Your task to perform on an android device: Open notification settings Image 0: 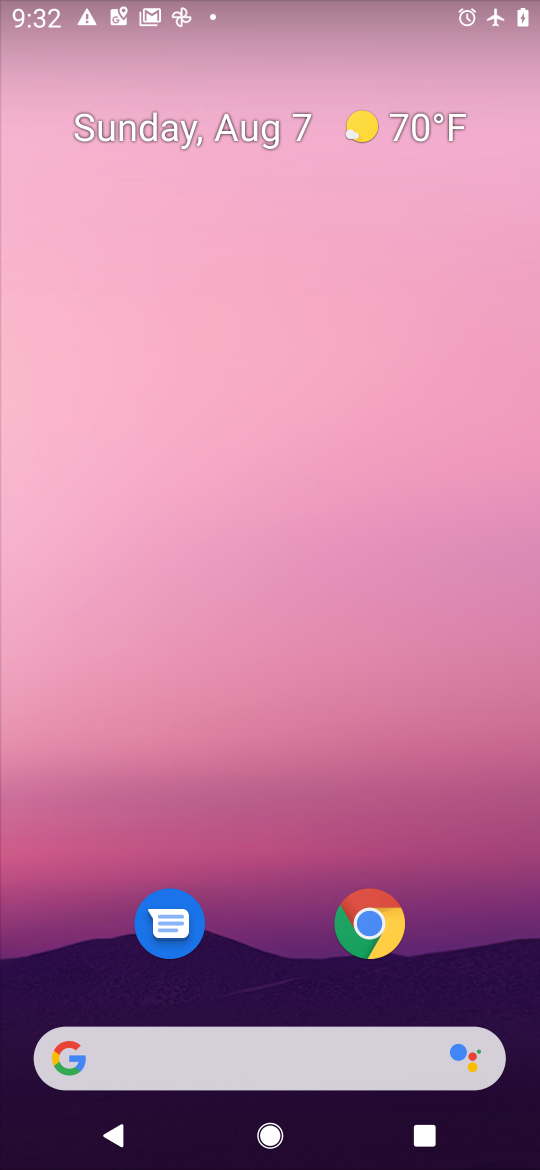
Step 0: drag from (514, 961) to (154, 25)
Your task to perform on an android device: Open notification settings Image 1: 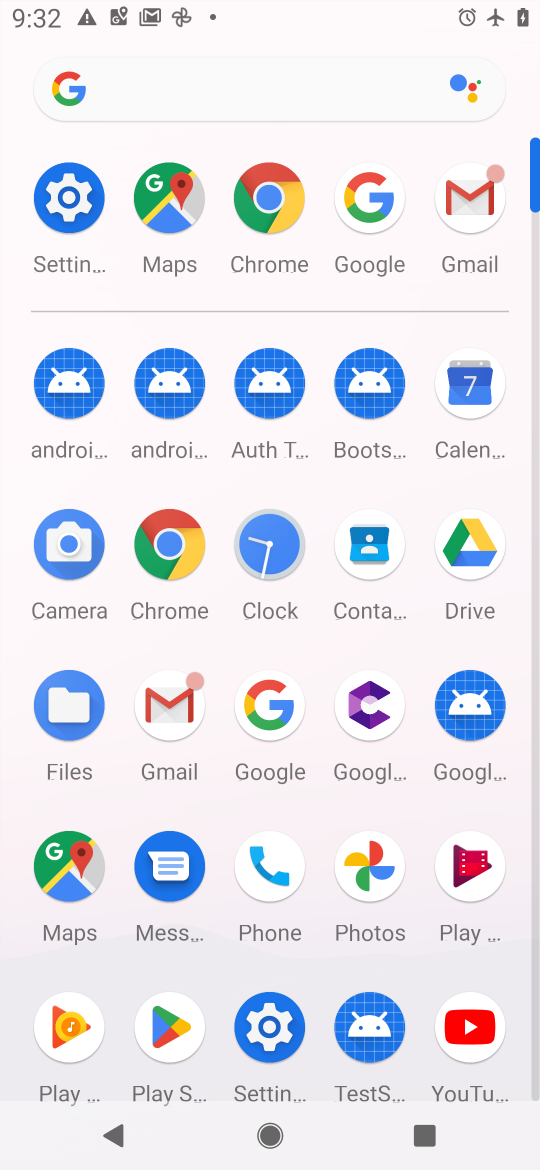
Step 1: click (259, 1029)
Your task to perform on an android device: Open notification settings Image 2: 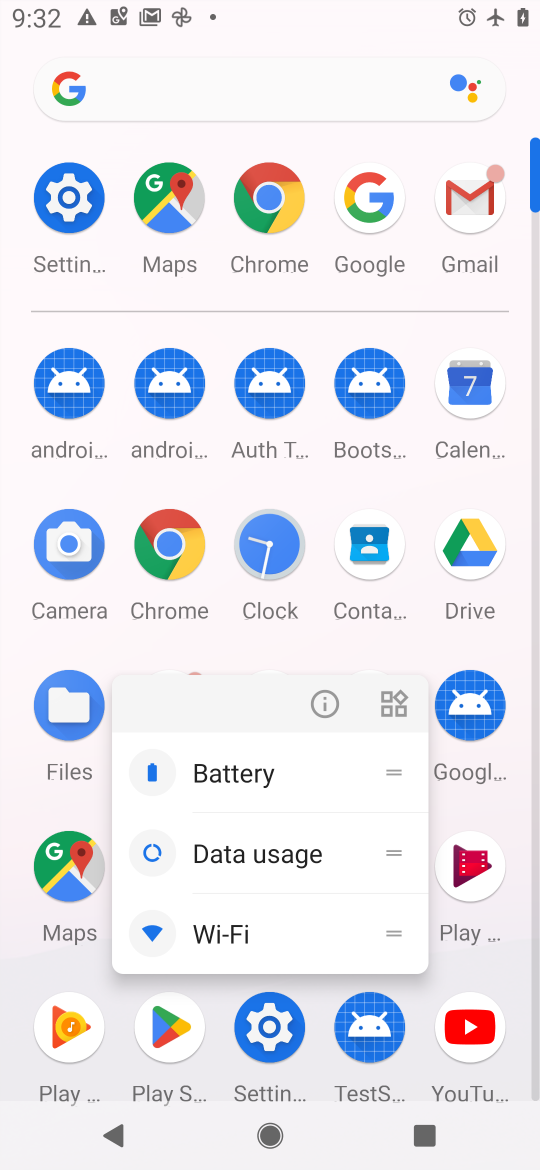
Step 2: click (259, 1029)
Your task to perform on an android device: Open notification settings Image 3: 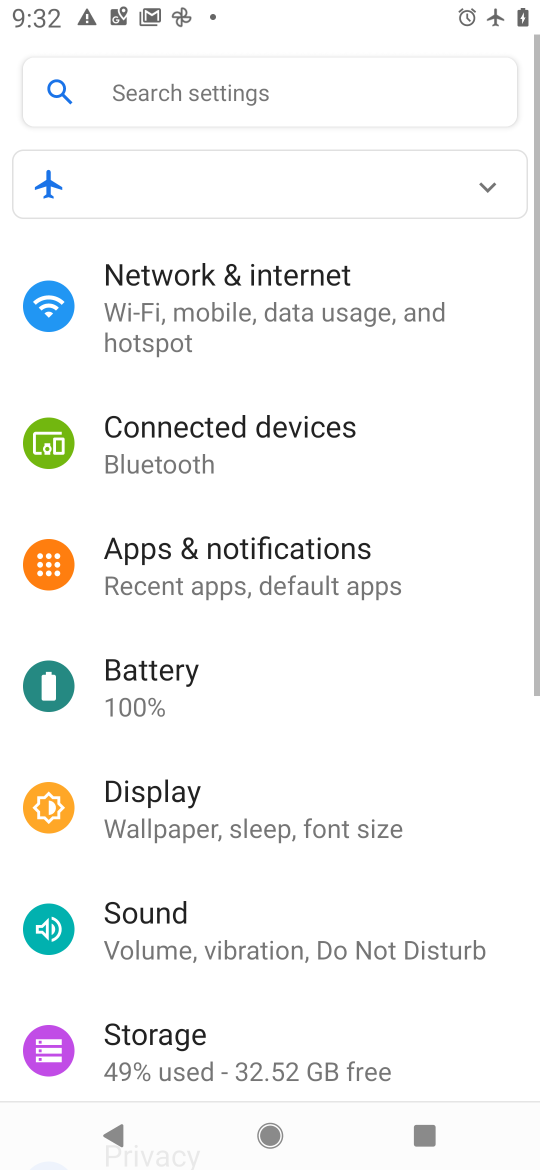
Step 3: click (170, 573)
Your task to perform on an android device: Open notification settings Image 4: 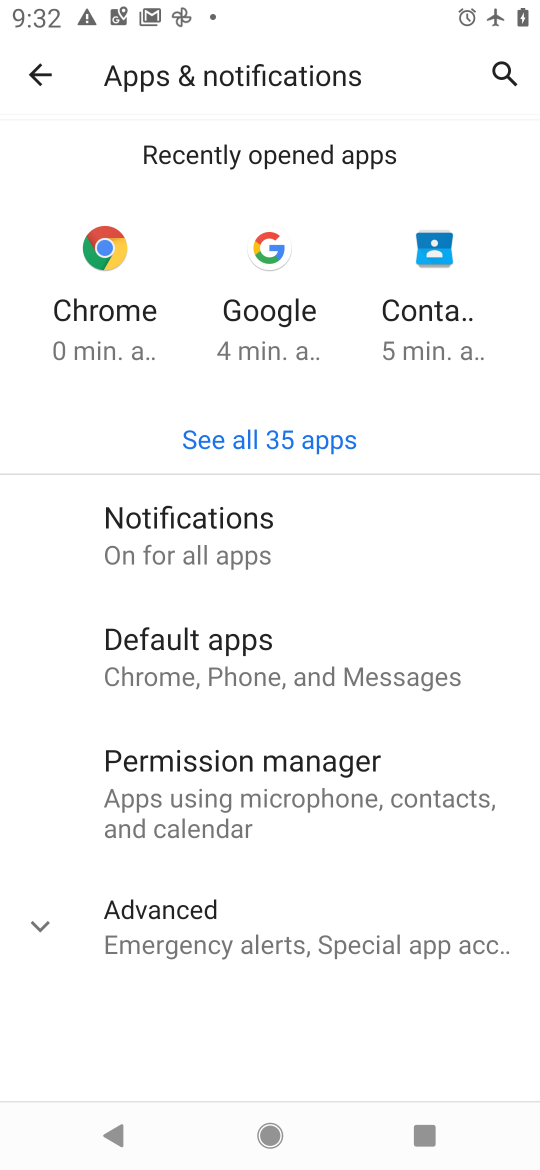
Step 4: click (140, 553)
Your task to perform on an android device: Open notification settings Image 5: 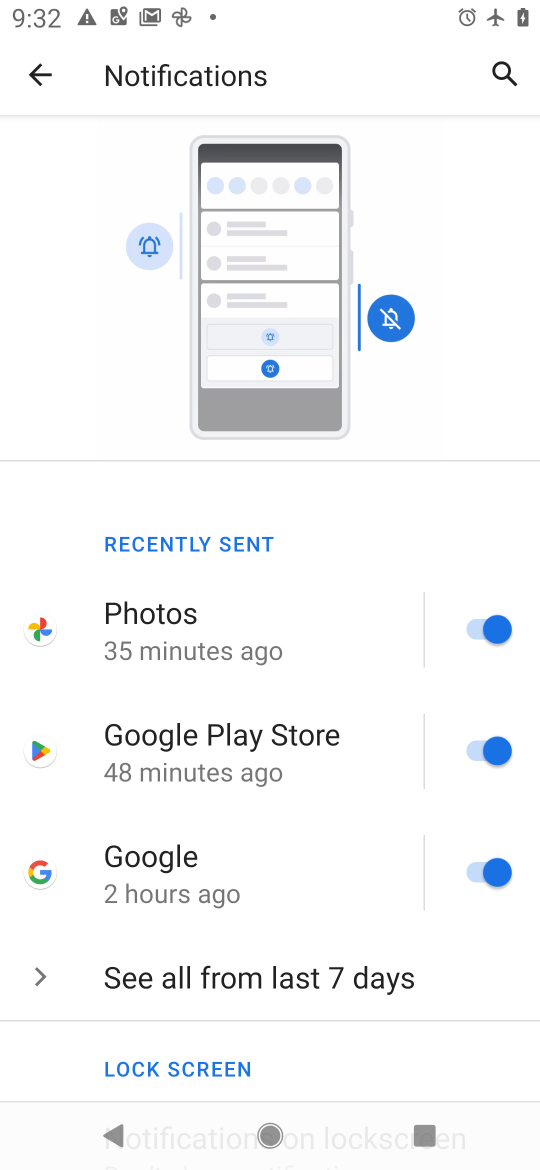
Step 5: task complete